Your task to perform on an android device: manage bookmarks in the chrome app Image 0: 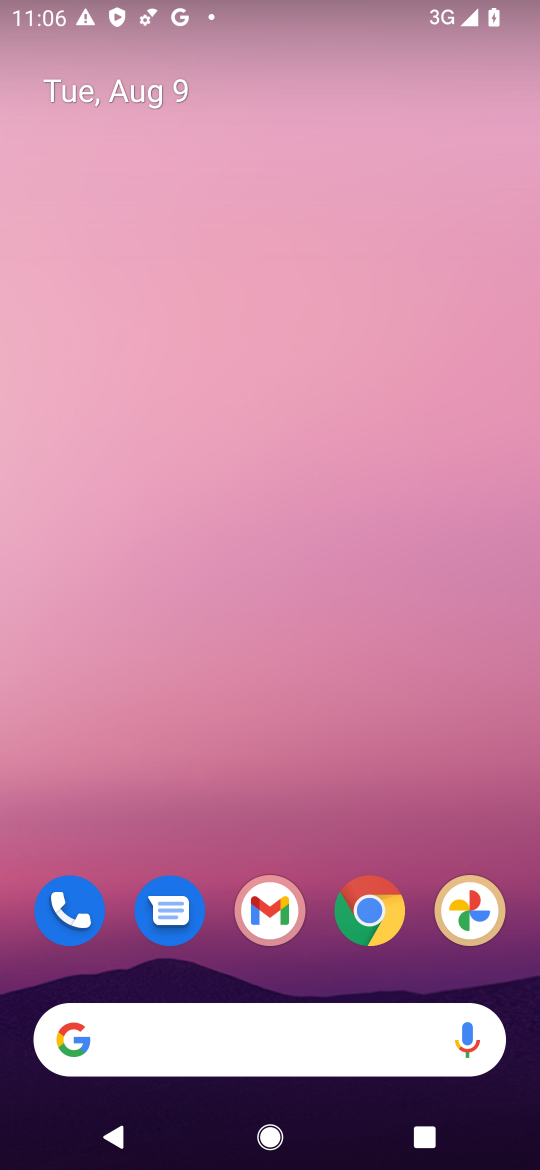
Step 0: click (356, 910)
Your task to perform on an android device: manage bookmarks in the chrome app Image 1: 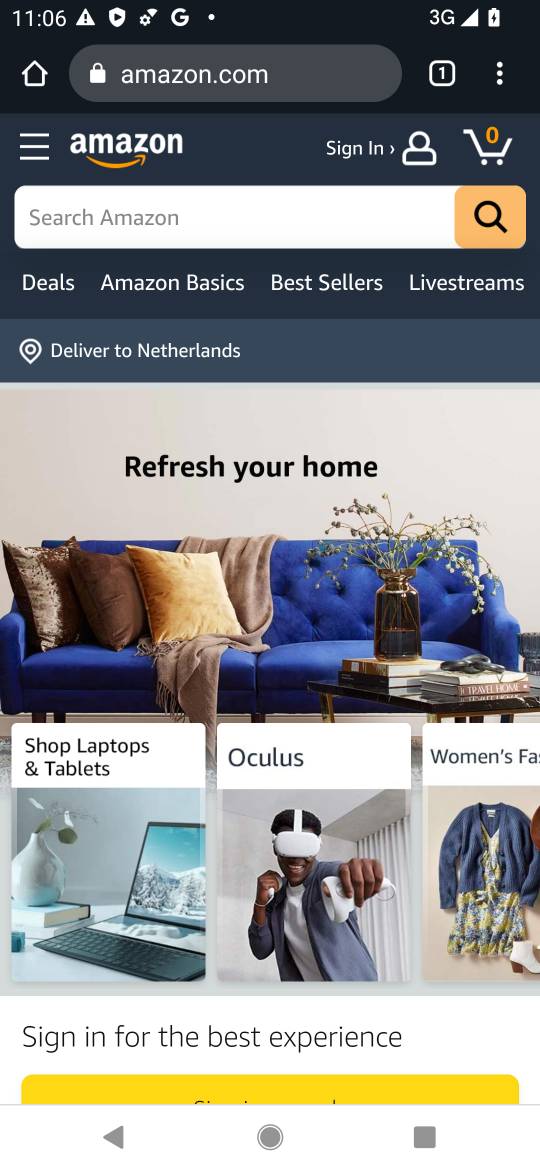
Step 1: click (494, 70)
Your task to perform on an android device: manage bookmarks in the chrome app Image 2: 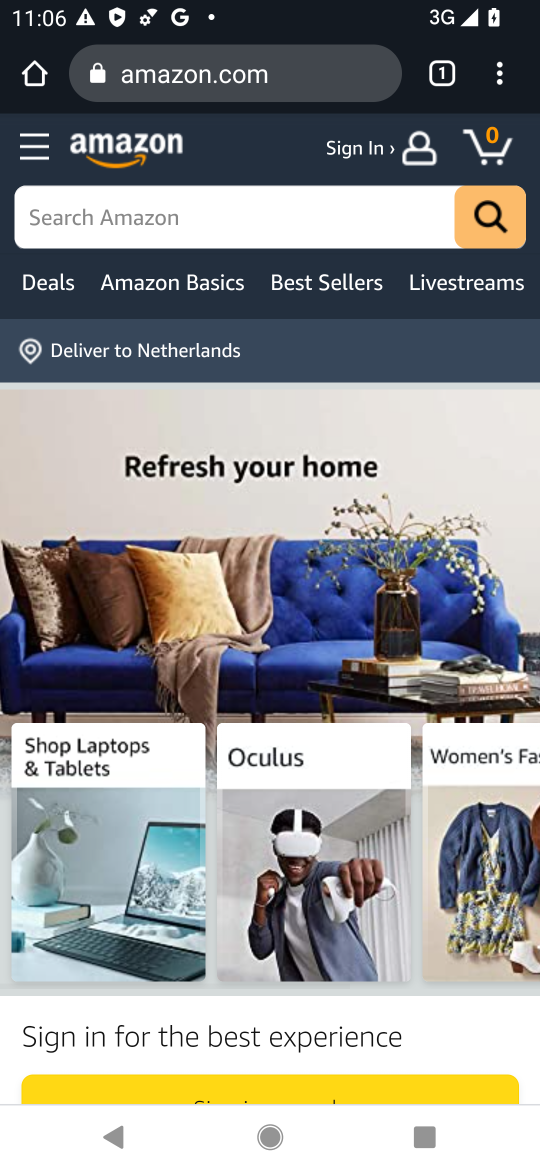
Step 2: click (502, 80)
Your task to perform on an android device: manage bookmarks in the chrome app Image 3: 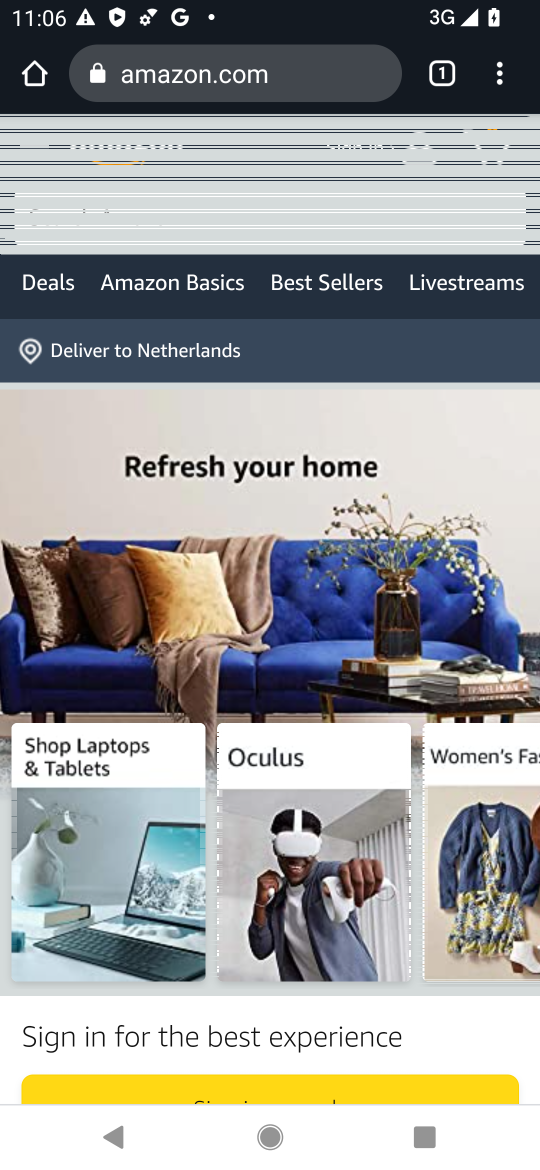
Step 3: click (503, 81)
Your task to perform on an android device: manage bookmarks in the chrome app Image 4: 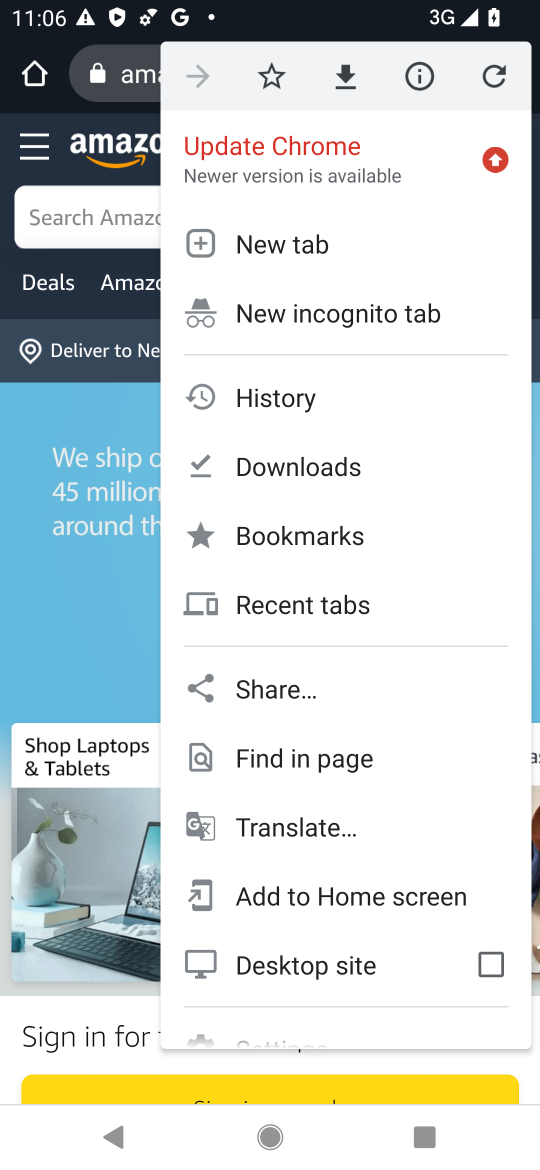
Step 4: click (365, 542)
Your task to perform on an android device: manage bookmarks in the chrome app Image 5: 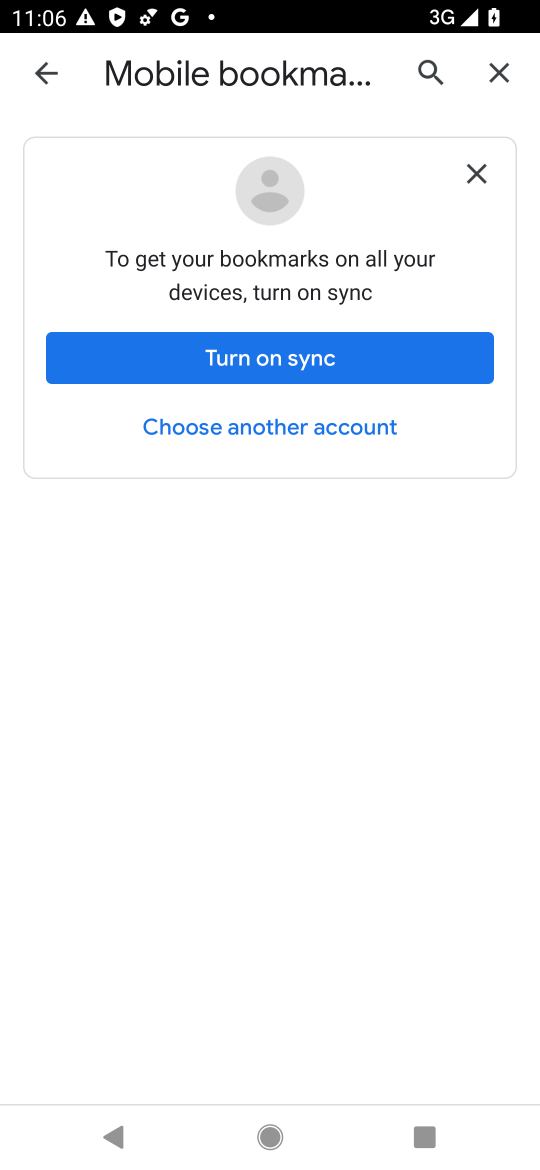
Step 5: task complete